Your task to perform on an android device: Open CNN.com Image 0: 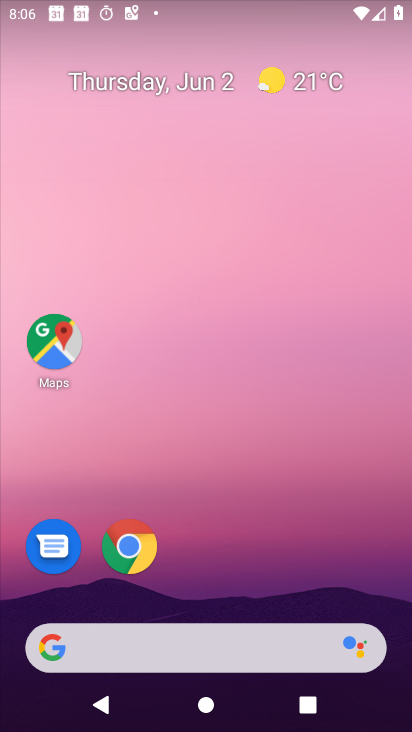
Step 0: drag from (298, 207) to (309, 168)
Your task to perform on an android device: Open CNN.com Image 1: 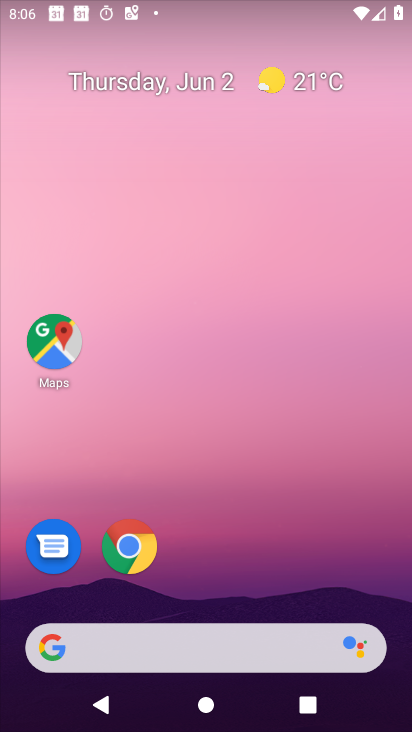
Step 1: drag from (351, 554) to (358, 150)
Your task to perform on an android device: Open CNN.com Image 2: 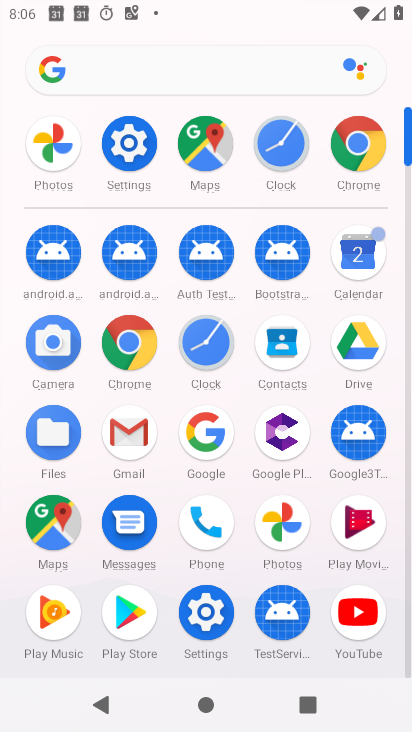
Step 2: click (98, 345)
Your task to perform on an android device: Open CNN.com Image 3: 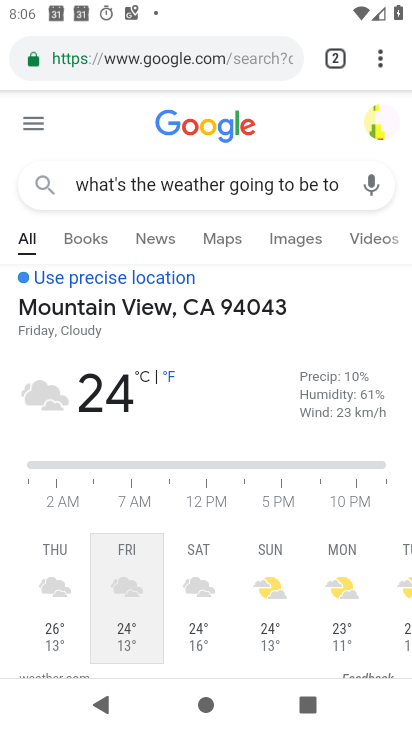
Step 3: click (186, 46)
Your task to perform on an android device: Open CNN.com Image 4: 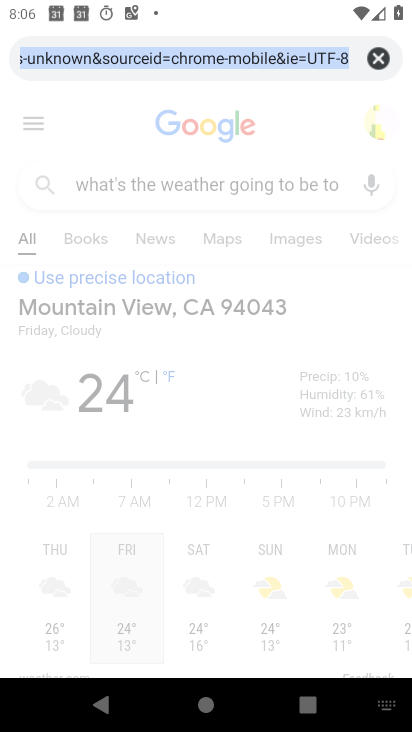
Step 4: click (385, 47)
Your task to perform on an android device: Open CNN.com Image 5: 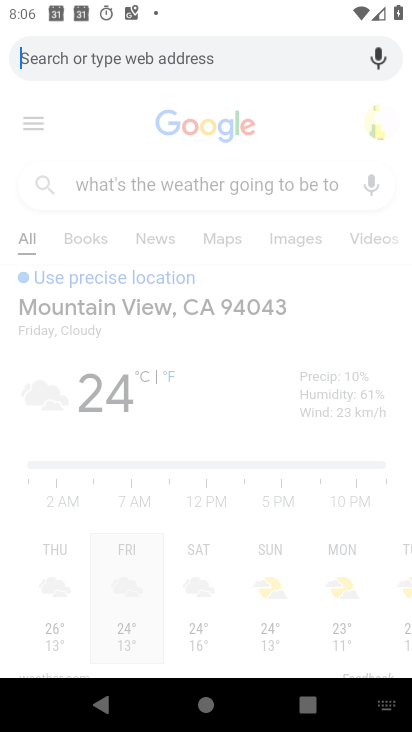
Step 5: type "cnn.com"
Your task to perform on an android device: Open CNN.com Image 6: 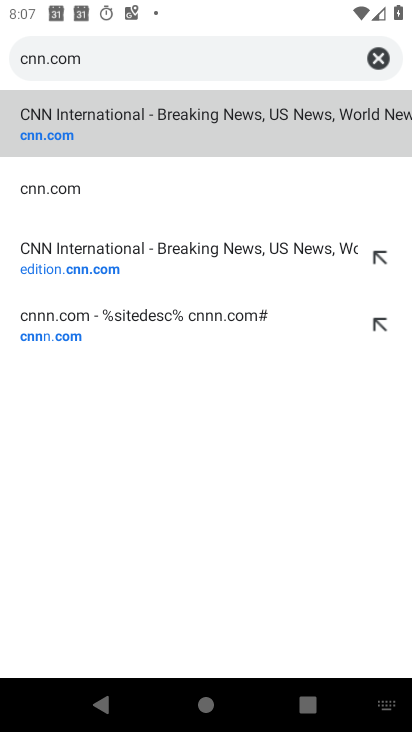
Step 6: click (169, 135)
Your task to perform on an android device: Open CNN.com Image 7: 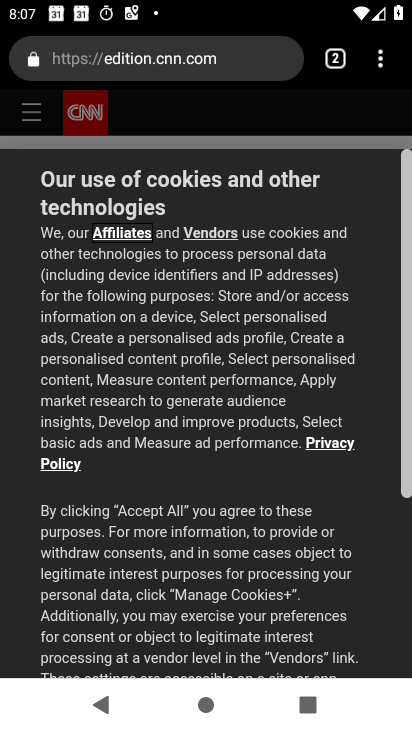
Step 7: task complete